Your task to perform on an android device: allow cookies in the chrome app Image 0: 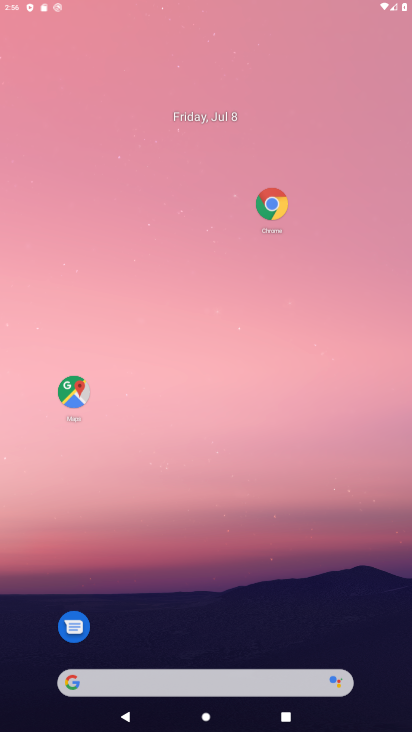
Step 0: drag from (177, 643) to (247, 155)
Your task to perform on an android device: allow cookies in the chrome app Image 1: 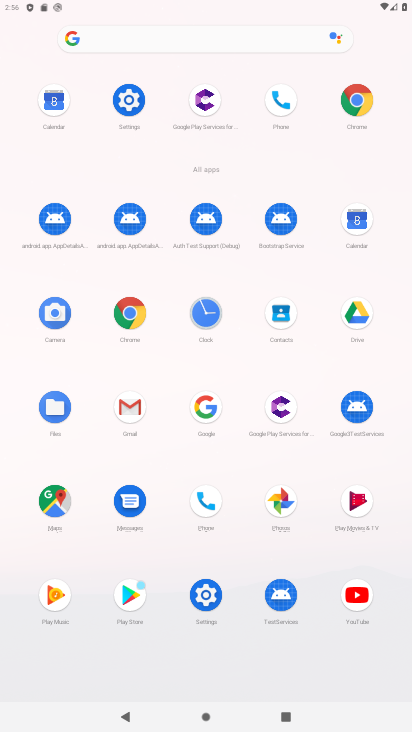
Step 1: click (130, 312)
Your task to perform on an android device: allow cookies in the chrome app Image 2: 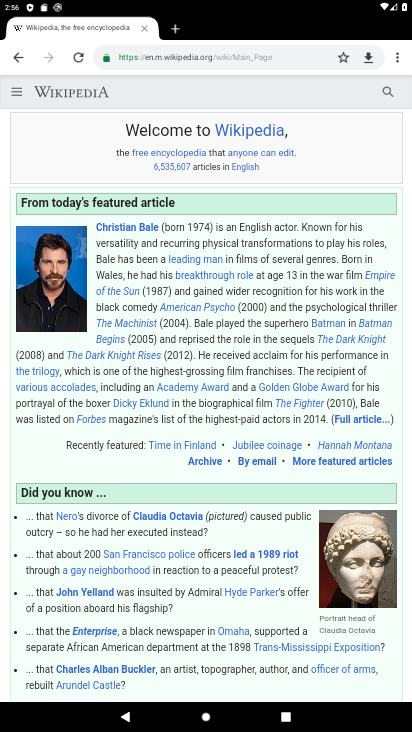
Step 2: press home button
Your task to perform on an android device: allow cookies in the chrome app Image 3: 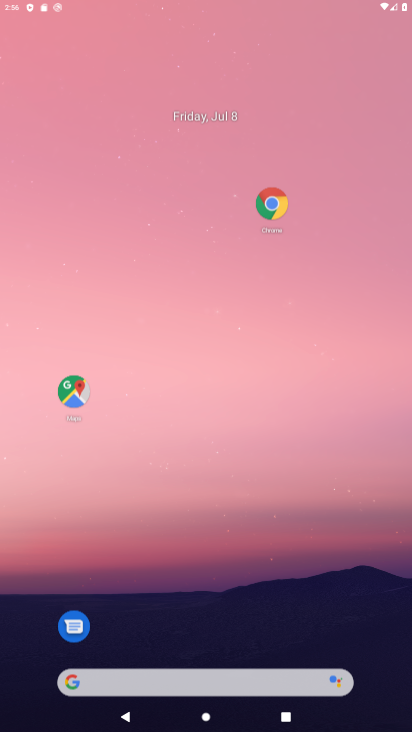
Step 3: drag from (162, 581) to (233, 183)
Your task to perform on an android device: allow cookies in the chrome app Image 4: 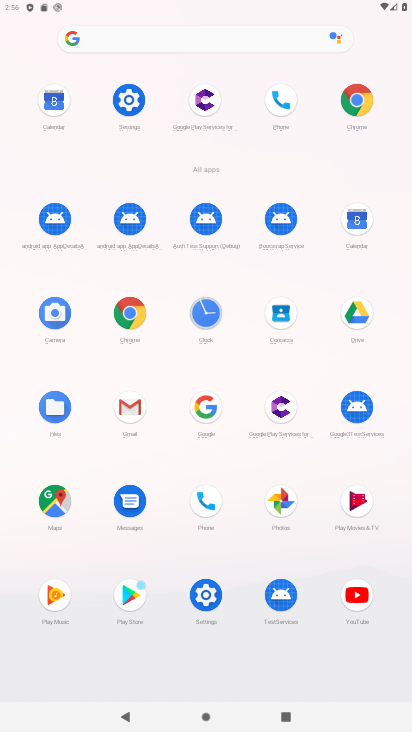
Step 4: click (361, 95)
Your task to perform on an android device: allow cookies in the chrome app Image 5: 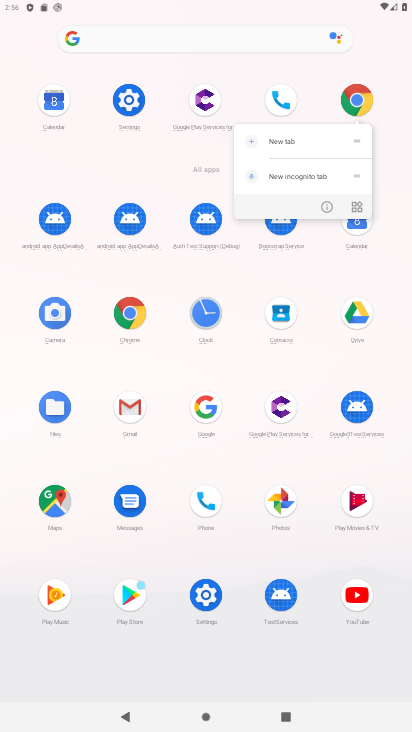
Step 5: click (327, 203)
Your task to perform on an android device: allow cookies in the chrome app Image 6: 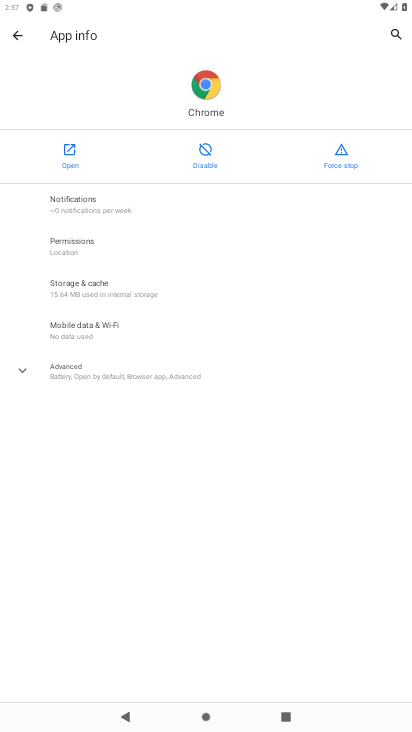
Step 6: drag from (133, 462) to (183, 274)
Your task to perform on an android device: allow cookies in the chrome app Image 7: 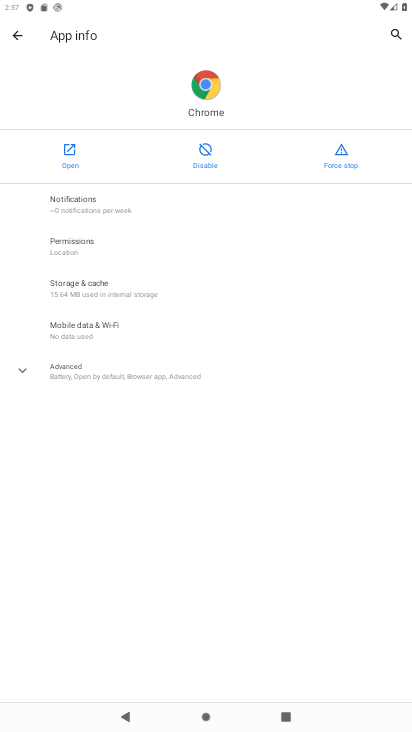
Step 7: click (58, 160)
Your task to perform on an android device: allow cookies in the chrome app Image 8: 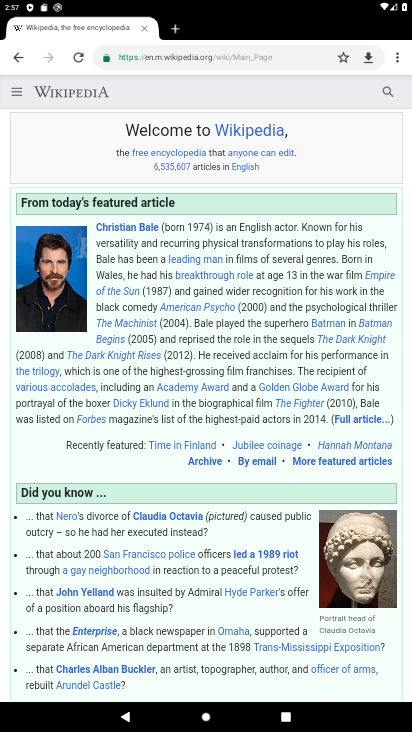
Step 8: click (400, 54)
Your task to perform on an android device: allow cookies in the chrome app Image 9: 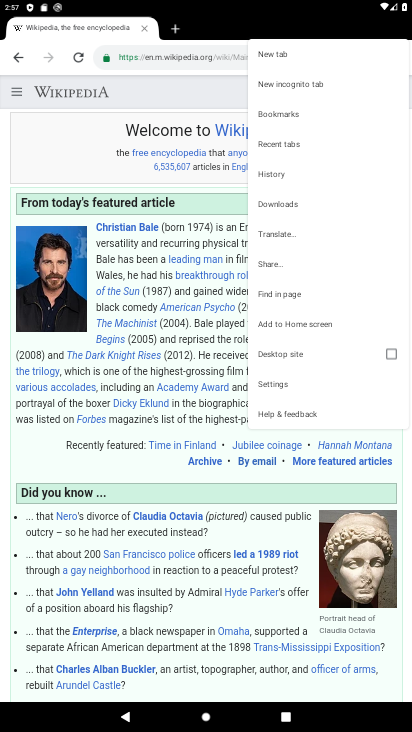
Step 9: click (268, 388)
Your task to perform on an android device: allow cookies in the chrome app Image 10: 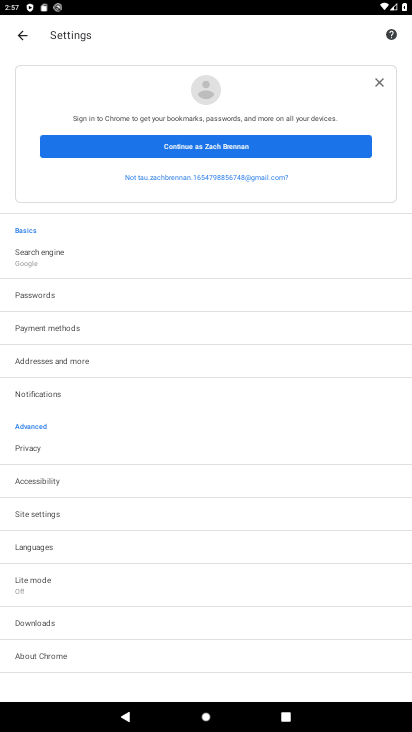
Step 10: click (46, 497)
Your task to perform on an android device: allow cookies in the chrome app Image 11: 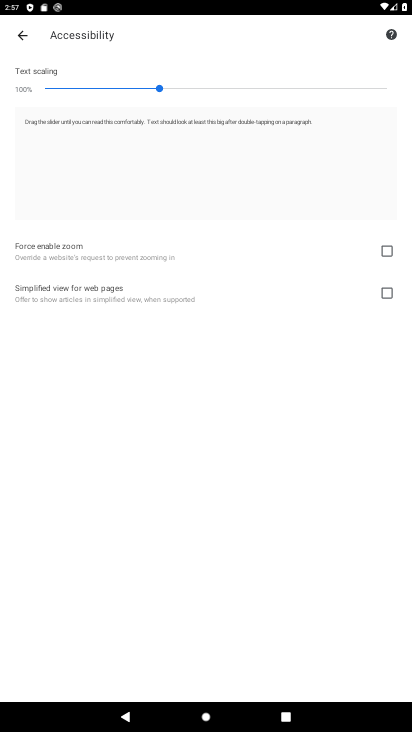
Step 11: click (13, 44)
Your task to perform on an android device: allow cookies in the chrome app Image 12: 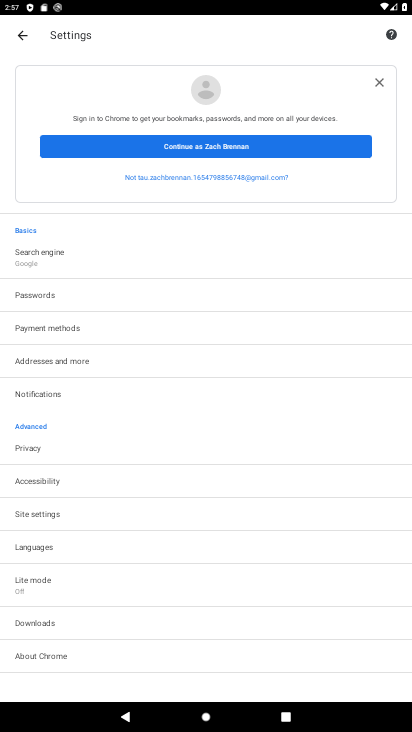
Step 12: click (93, 500)
Your task to perform on an android device: allow cookies in the chrome app Image 13: 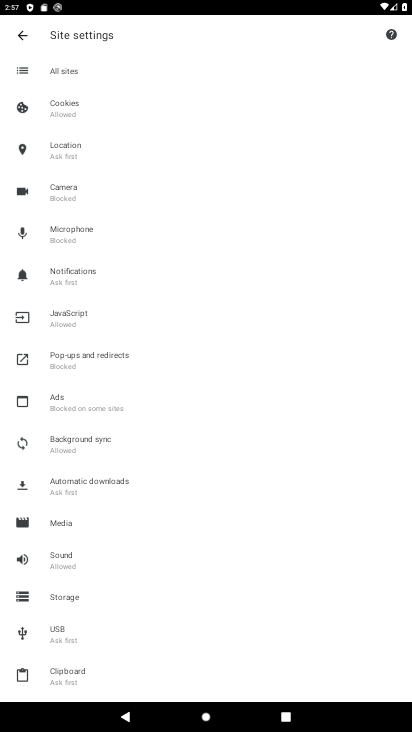
Step 13: click (83, 112)
Your task to perform on an android device: allow cookies in the chrome app Image 14: 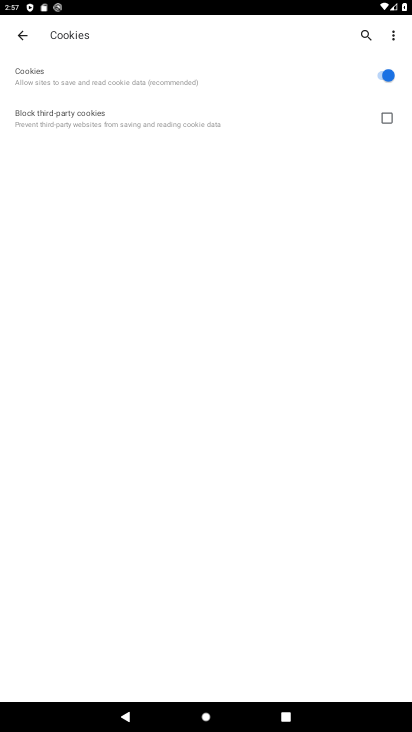
Step 14: task complete